Your task to perform on an android device: stop showing notifications on the lock screen Image 0: 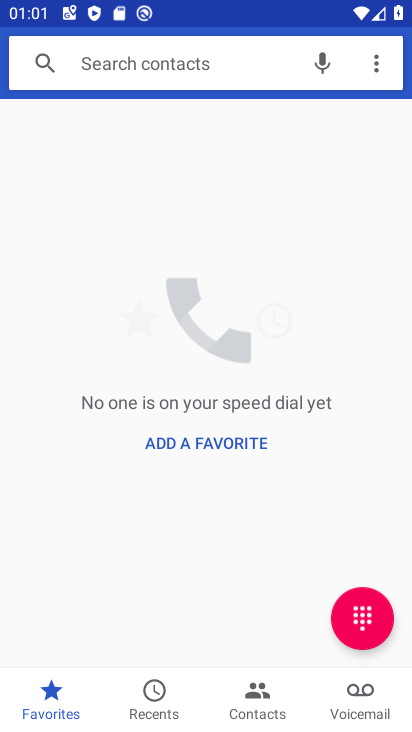
Step 0: press back button
Your task to perform on an android device: stop showing notifications on the lock screen Image 1: 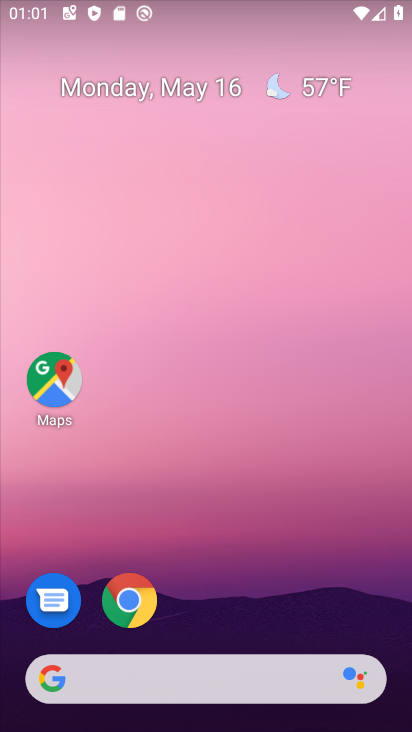
Step 1: drag from (176, 629) to (226, 154)
Your task to perform on an android device: stop showing notifications on the lock screen Image 2: 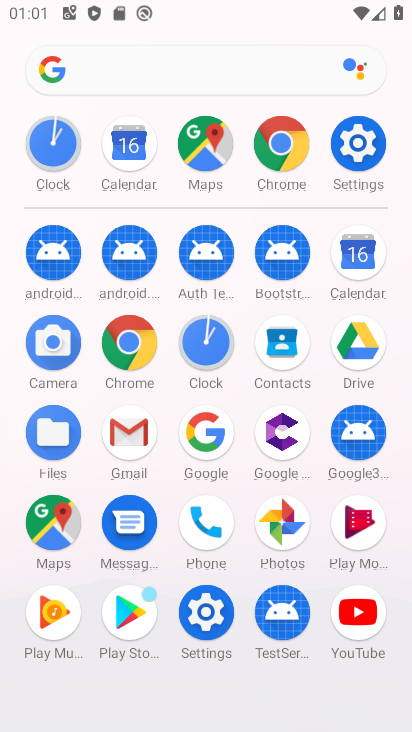
Step 2: click (372, 125)
Your task to perform on an android device: stop showing notifications on the lock screen Image 3: 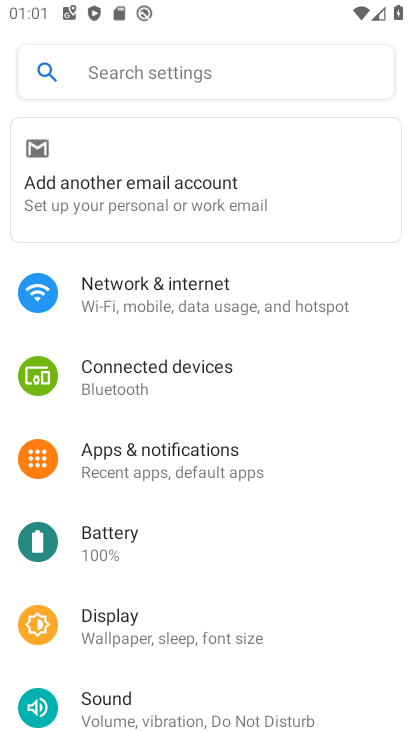
Step 3: click (187, 449)
Your task to perform on an android device: stop showing notifications on the lock screen Image 4: 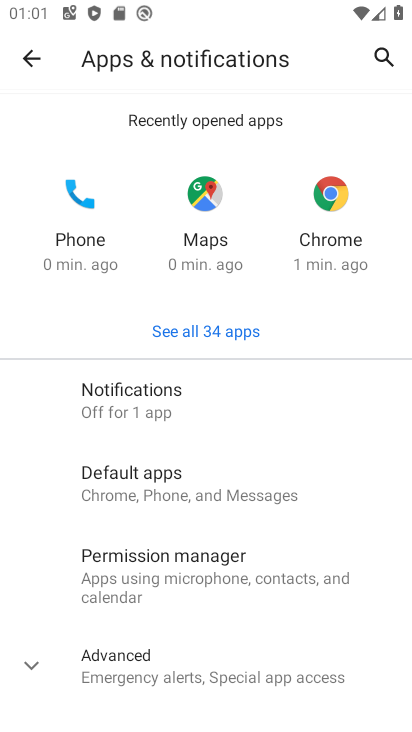
Step 4: click (169, 394)
Your task to perform on an android device: stop showing notifications on the lock screen Image 5: 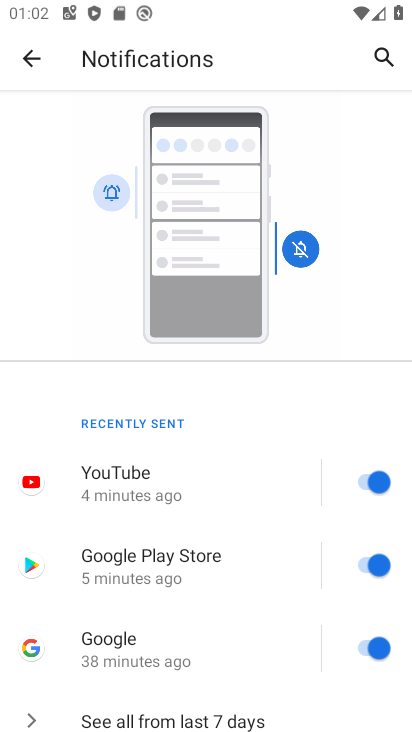
Step 5: drag from (172, 635) to (262, 197)
Your task to perform on an android device: stop showing notifications on the lock screen Image 6: 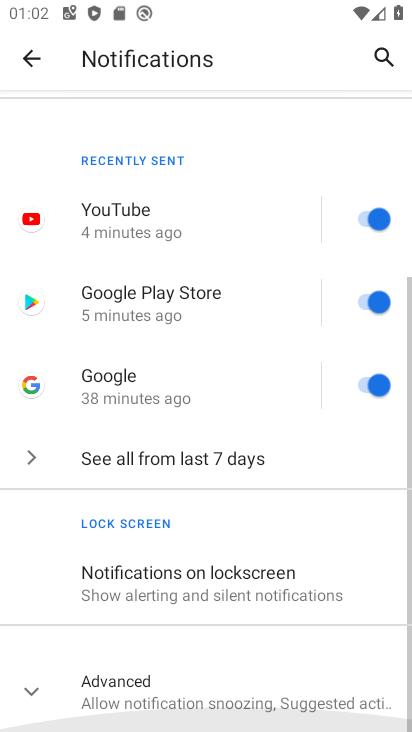
Step 6: click (214, 580)
Your task to perform on an android device: stop showing notifications on the lock screen Image 7: 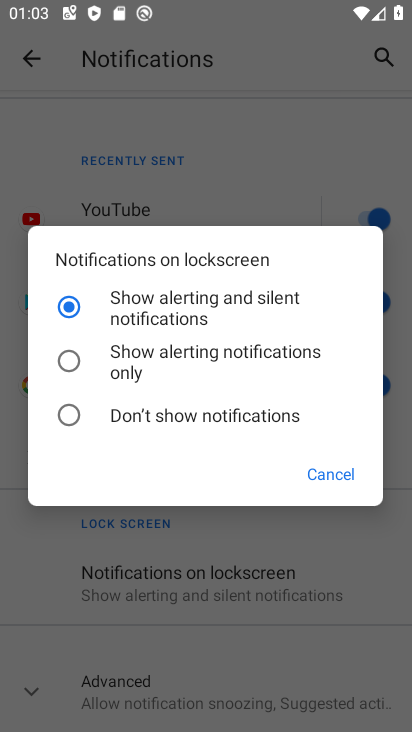
Step 7: click (61, 411)
Your task to perform on an android device: stop showing notifications on the lock screen Image 8: 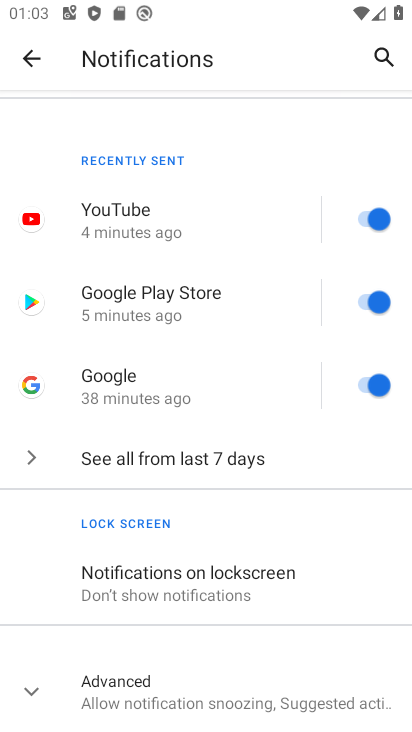
Step 8: task complete